Your task to perform on an android device: Open Chrome and go to settings Image 0: 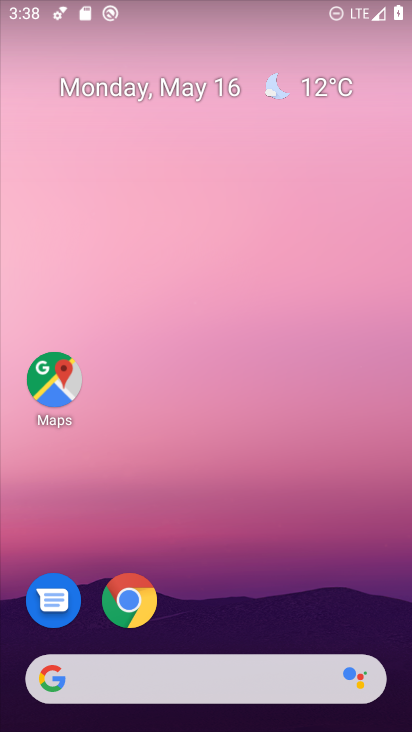
Step 0: click (145, 584)
Your task to perform on an android device: Open Chrome and go to settings Image 1: 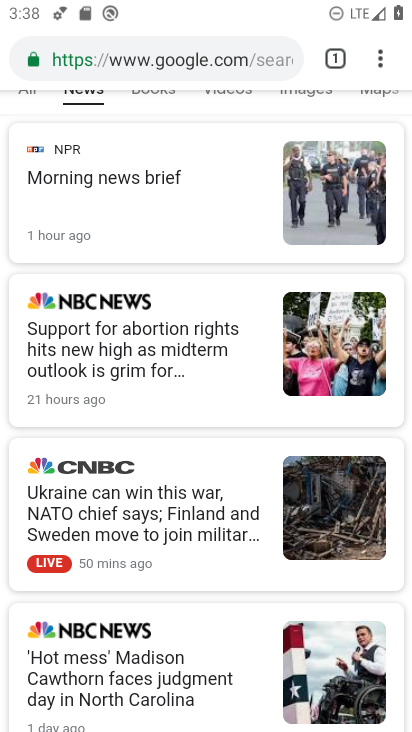
Step 1: drag from (388, 43) to (185, 660)
Your task to perform on an android device: Open Chrome and go to settings Image 2: 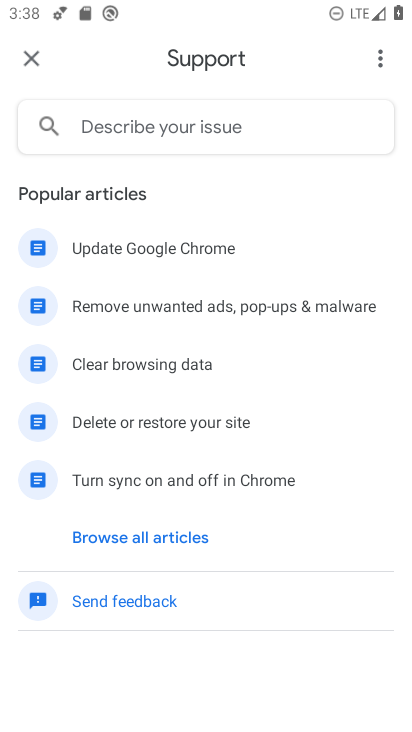
Step 2: click (28, 62)
Your task to perform on an android device: Open Chrome and go to settings Image 3: 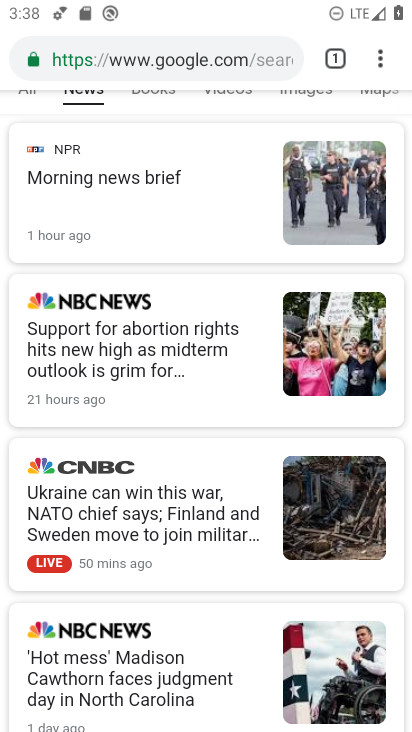
Step 3: task complete